Your task to perform on an android device: Search for Italian restaurants on Maps Image 0: 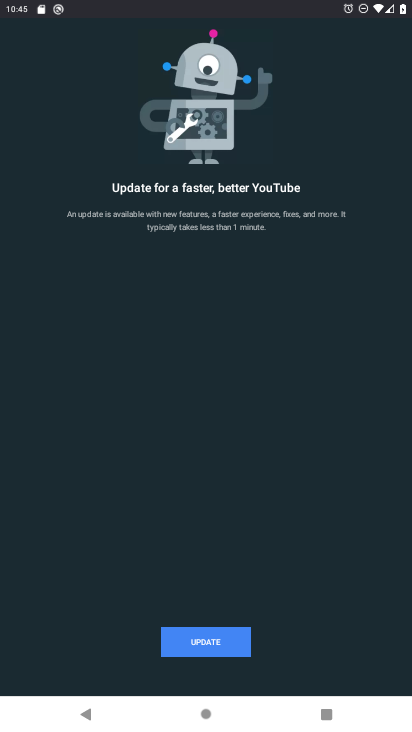
Step 0: press home button
Your task to perform on an android device: Search for Italian restaurants on Maps Image 1: 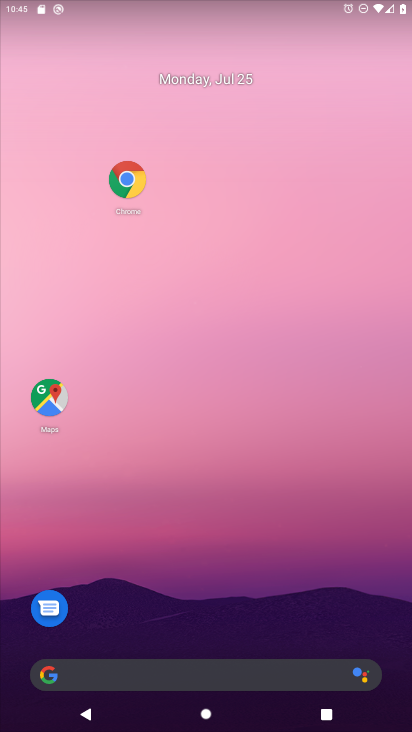
Step 1: click (48, 392)
Your task to perform on an android device: Search for Italian restaurants on Maps Image 2: 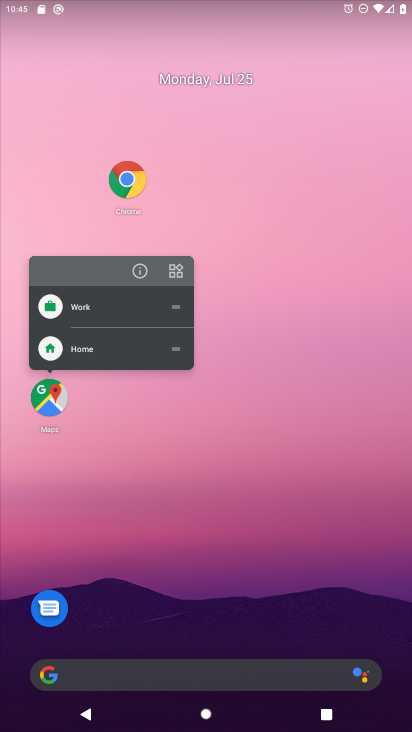
Step 2: click (42, 398)
Your task to perform on an android device: Search for Italian restaurants on Maps Image 3: 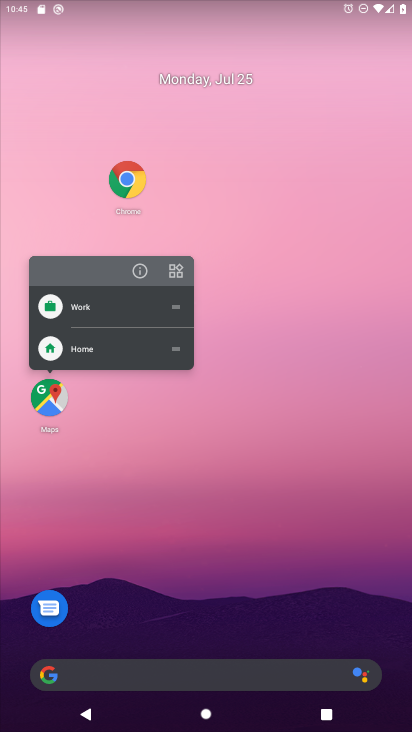
Step 3: click (42, 398)
Your task to perform on an android device: Search for Italian restaurants on Maps Image 4: 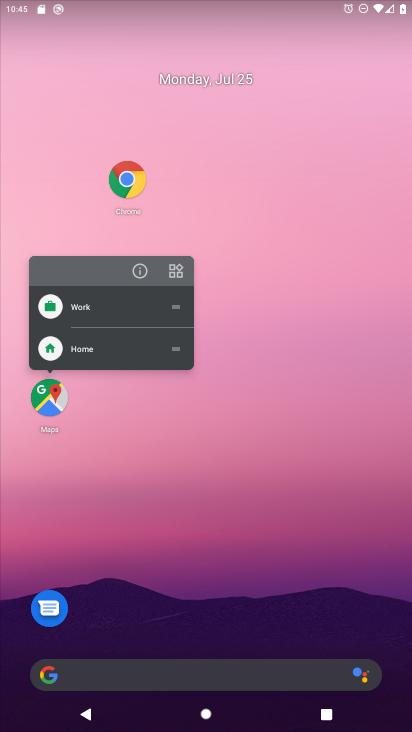
Step 4: click (42, 398)
Your task to perform on an android device: Search for Italian restaurants on Maps Image 5: 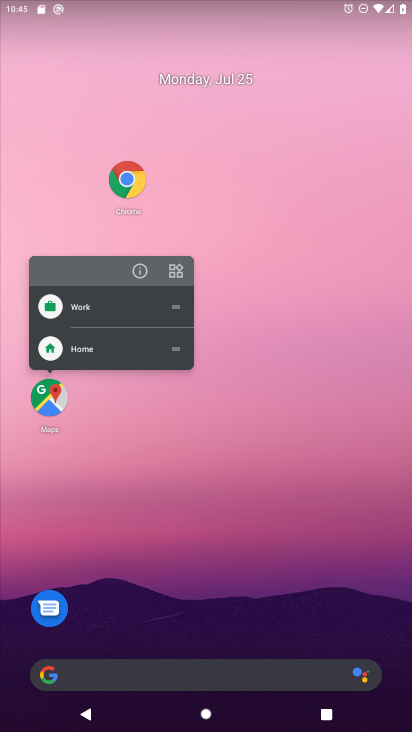
Step 5: click (42, 398)
Your task to perform on an android device: Search for Italian restaurants on Maps Image 6: 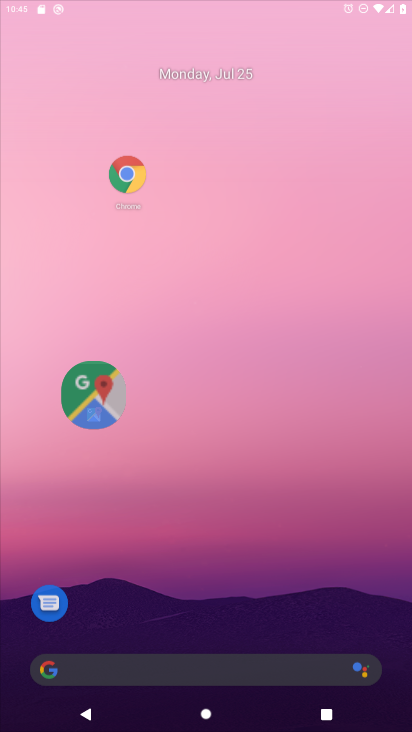
Step 6: click (42, 398)
Your task to perform on an android device: Search for Italian restaurants on Maps Image 7: 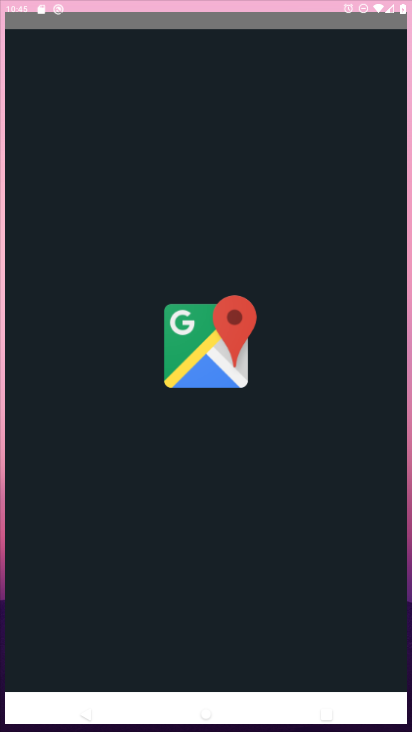
Step 7: click (42, 398)
Your task to perform on an android device: Search for Italian restaurants on Maps Image 8: 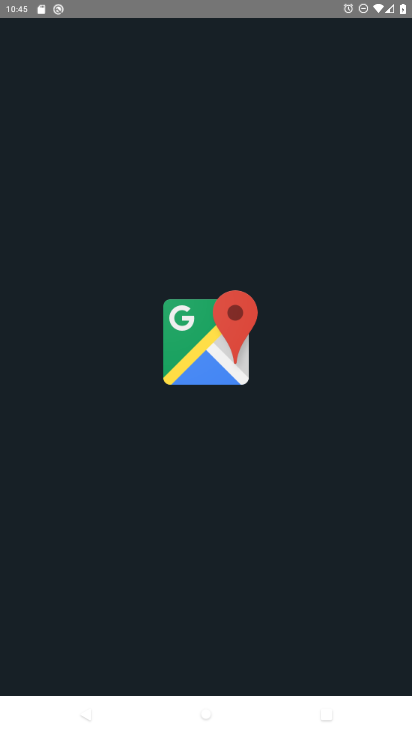
Step 8: click (42, 398)
Your task to perform on an android device: Search for Italian restaurants on Maps Image 9: 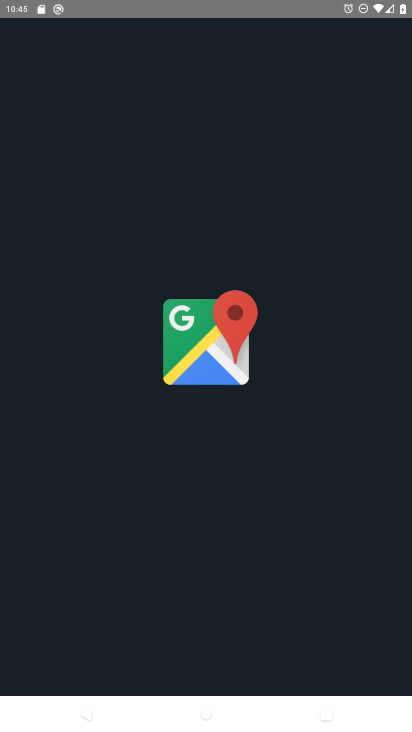
Step 9: click (42, 398)
Your task to perform on an android device: Search for Italian restaurants on Maps Image 10: 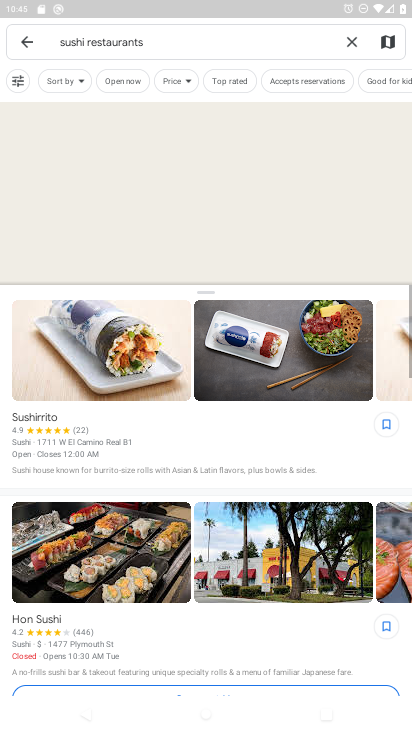
Step 10: click (348, 41)
Your task to perform on an android device: Search for Italian restaurants on Maps Image 11: 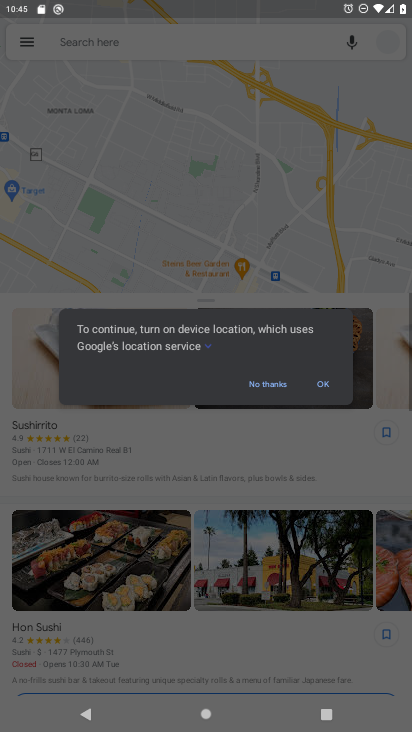
Step 11: click (329, 386)
Your task to perform on an android device: Search for Italian restaurants on Maps Image 12: 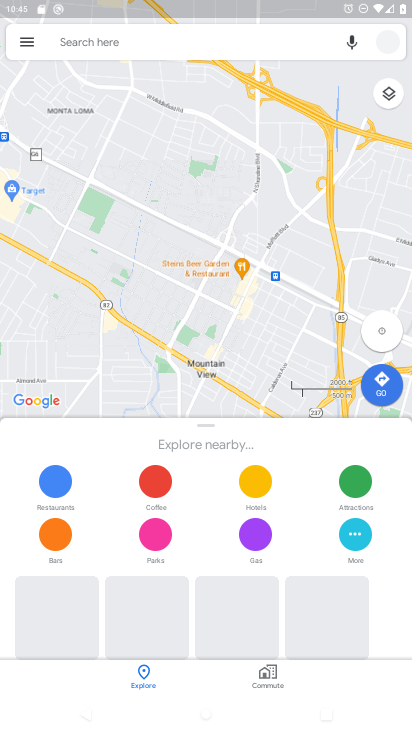
Step 12: click (153, 39)
Your task to perform on an android device: Search for Italian restaurants on Maps Image 13: 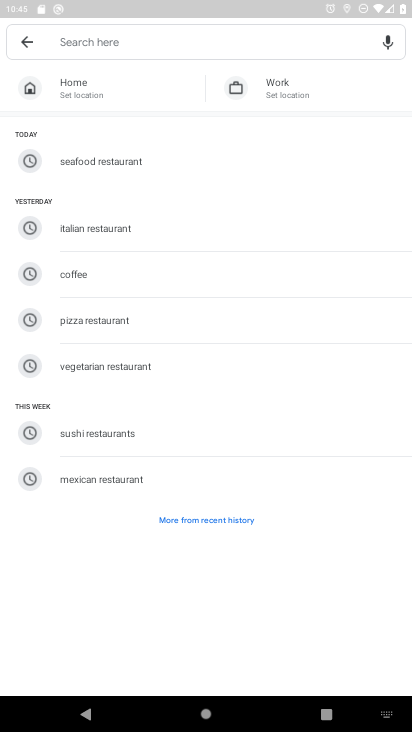
Step 13: click (122, 226)
Your task to perform on an android device: Search for Italian restaurants on Maps Image 14: 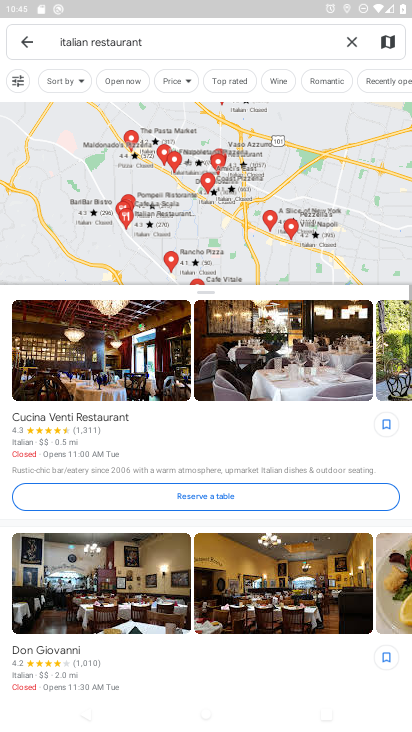
Step 14: task complete